Your task to perform on an android device: open app "Nova Launcher" (install if not already installed) Image 0: 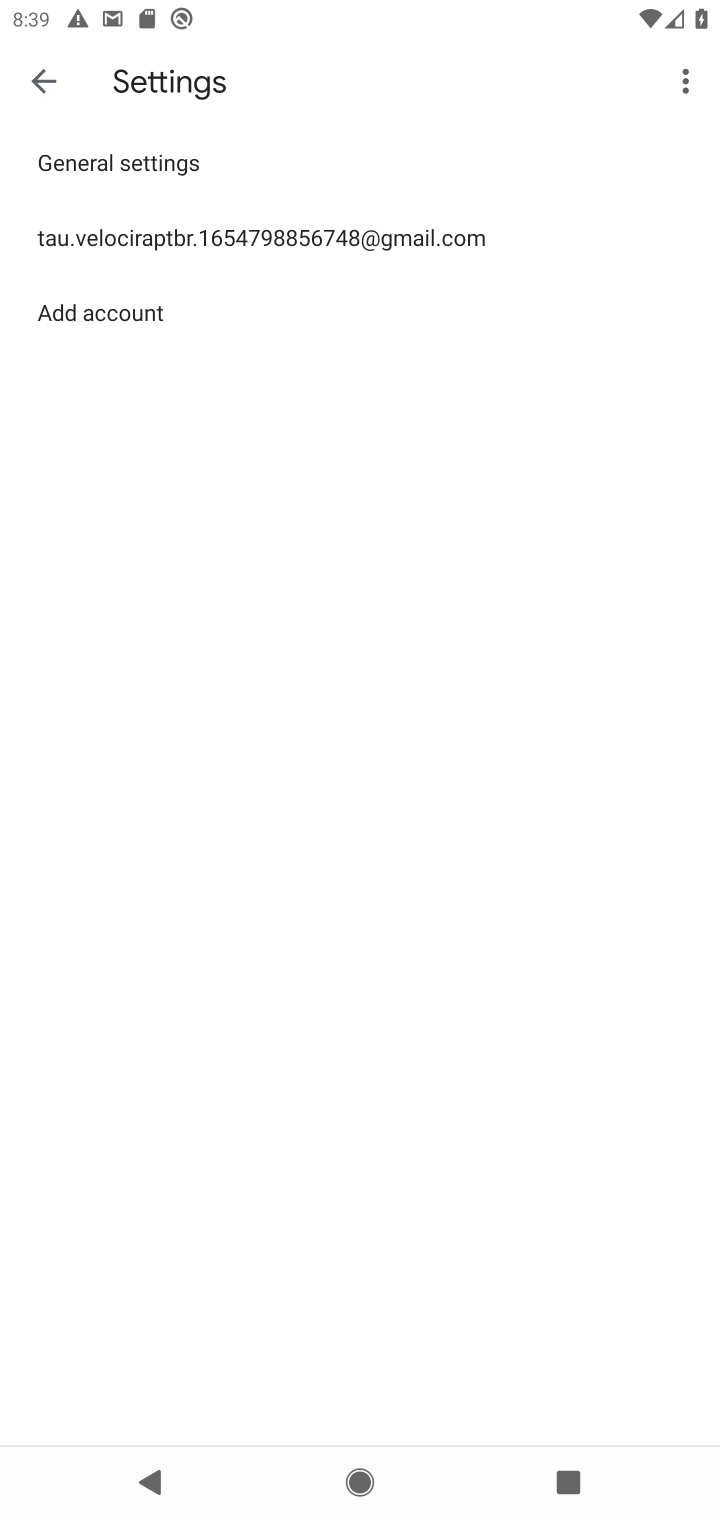
Step 0: press home button
Your task to perform on an android device: open app "Nova Launcher" (install if not already installed) Image 1: 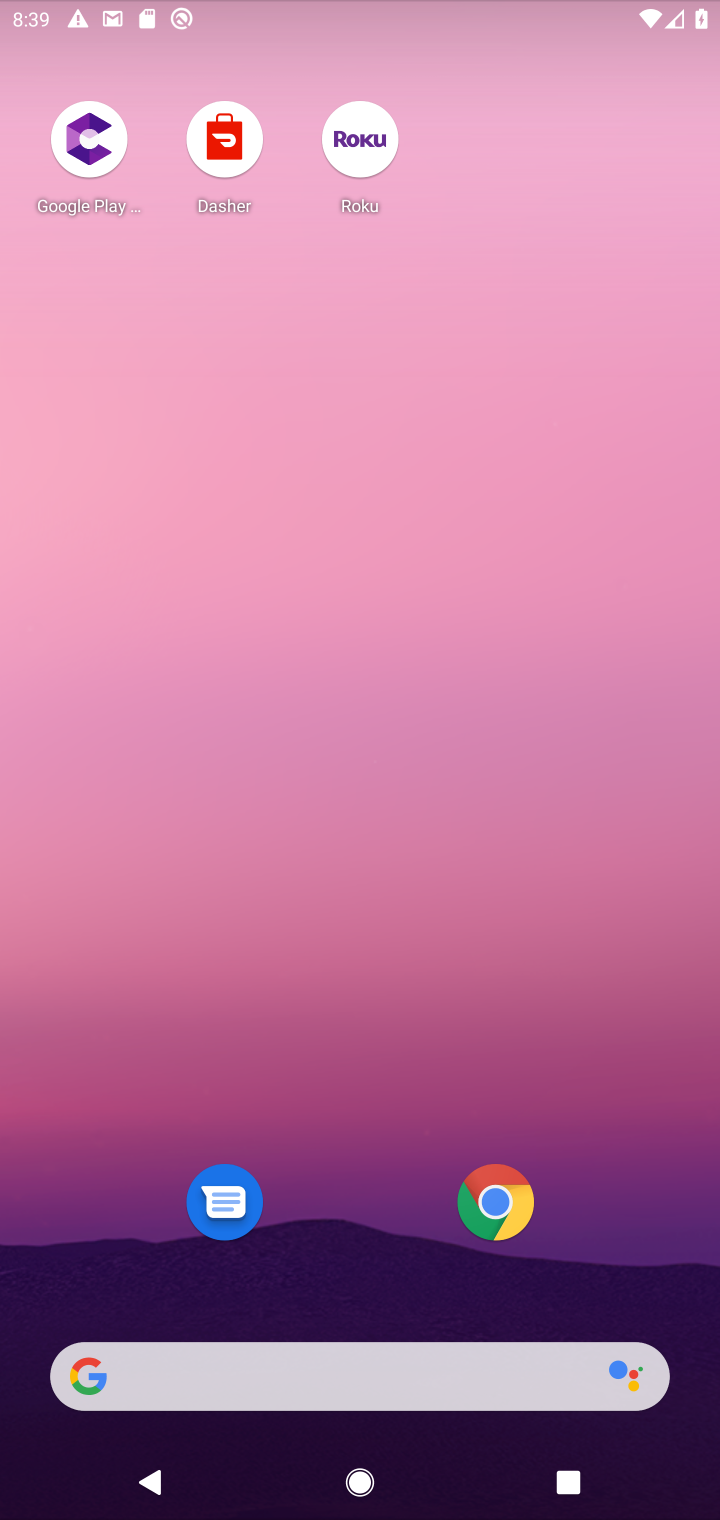
Step 1: drag from (410, 1397) to (609, 255)
Your task to perform on an android device: open app "Nova Launcher" (install if not already installed) Image 2: 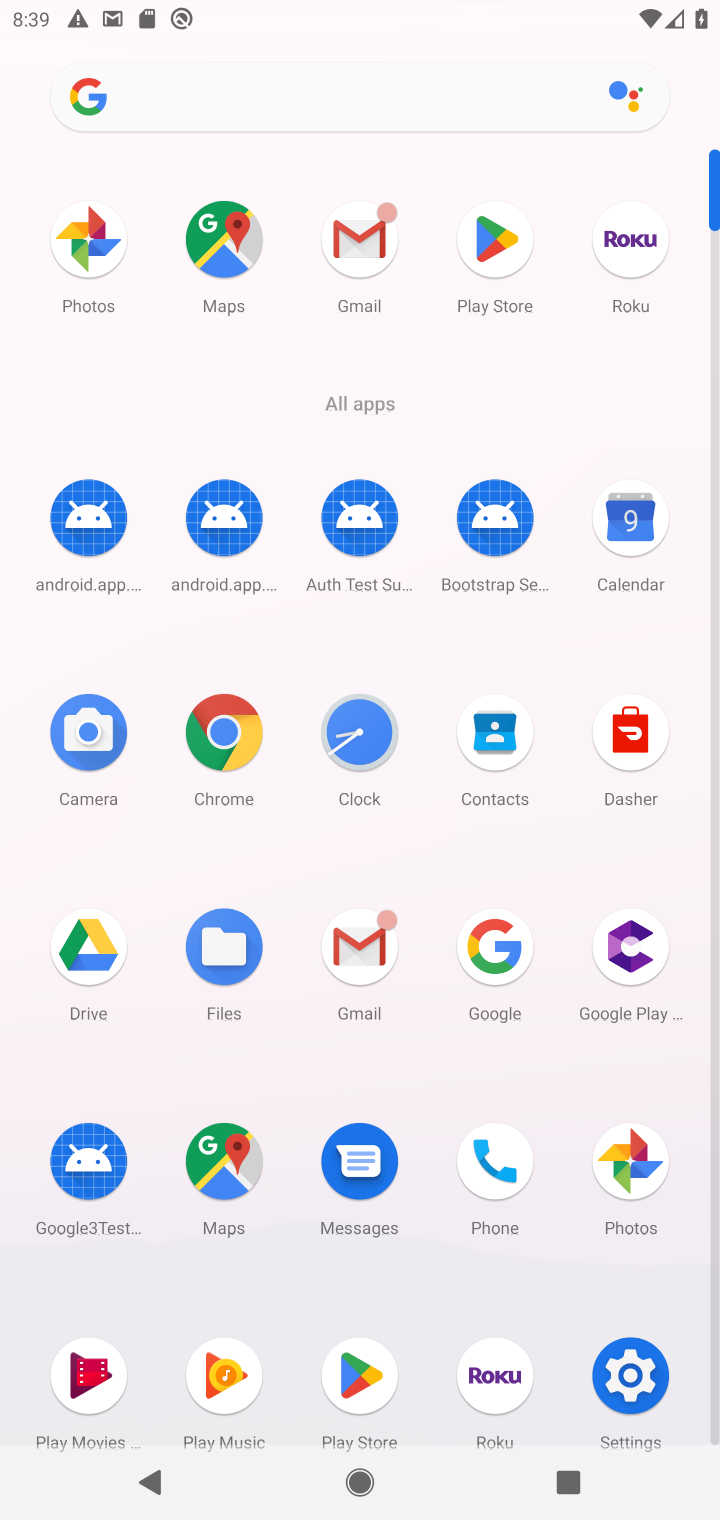
Step 2: click (491, 236)
Your task to perform on an android device: open app "Nova Launcher" (install if not already installed) Image 3: 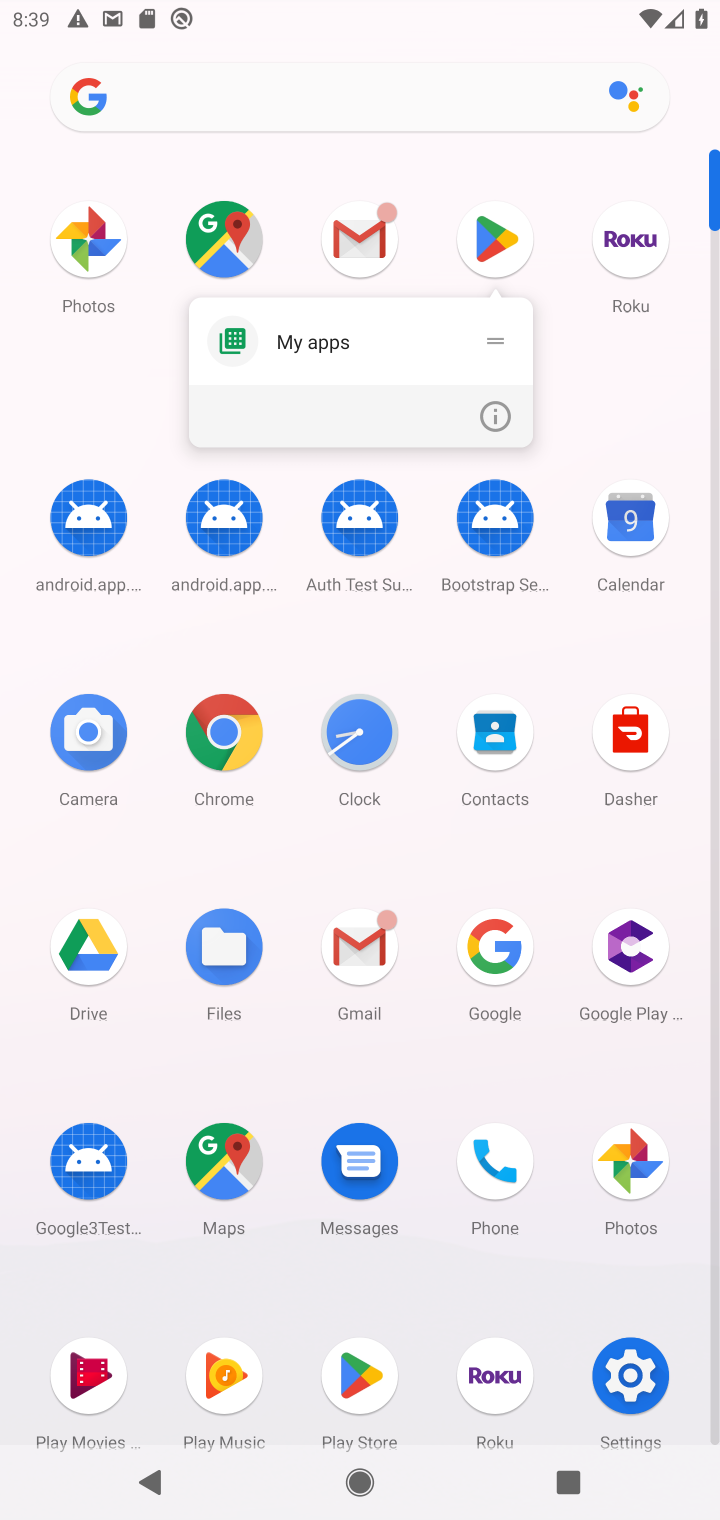
Step 3: click (478, 250)
Your task to perform on an android device: open app "Nova Launcher" (install if not already installed) Image 4: 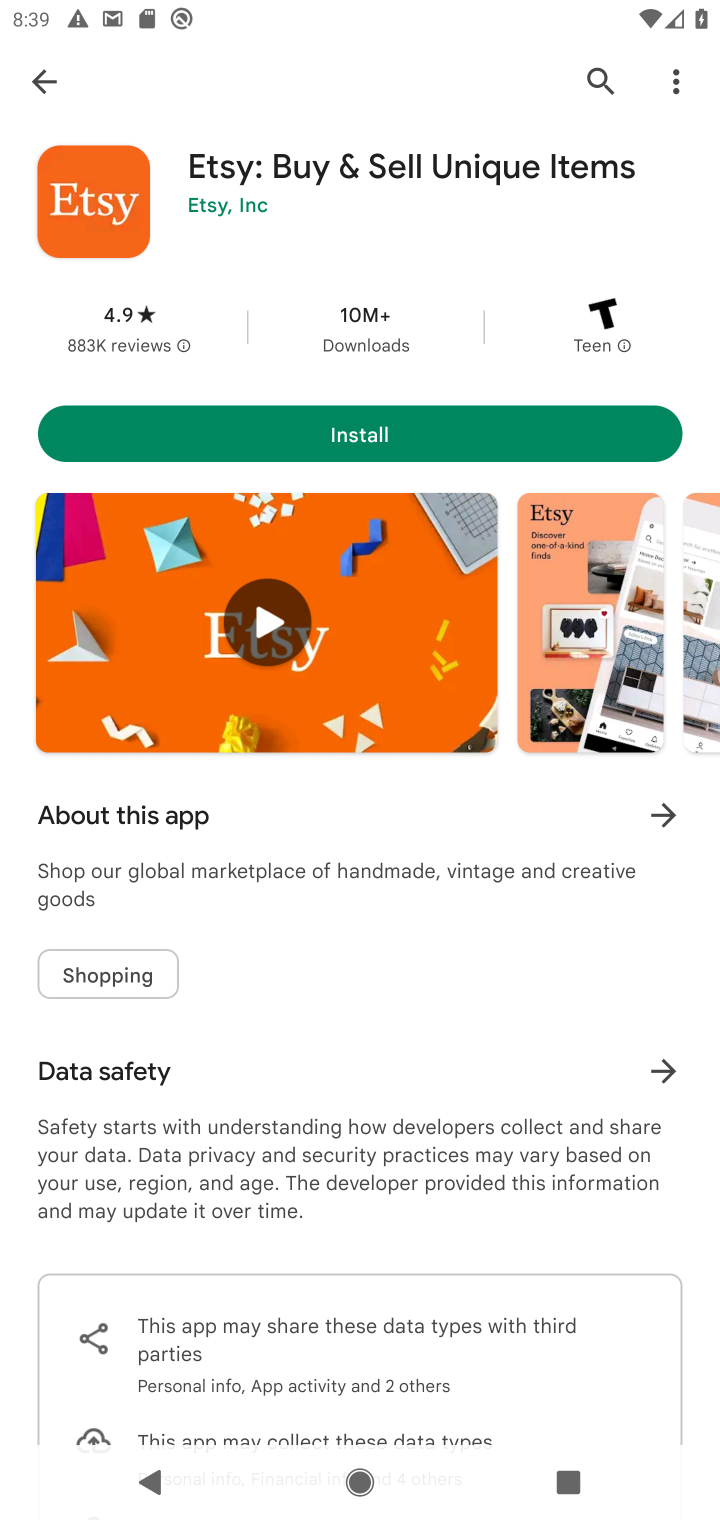
Step 4: press back button
Your task to perform on an android device: open app "Nova Launcher" (install if not already installed) Image 5: 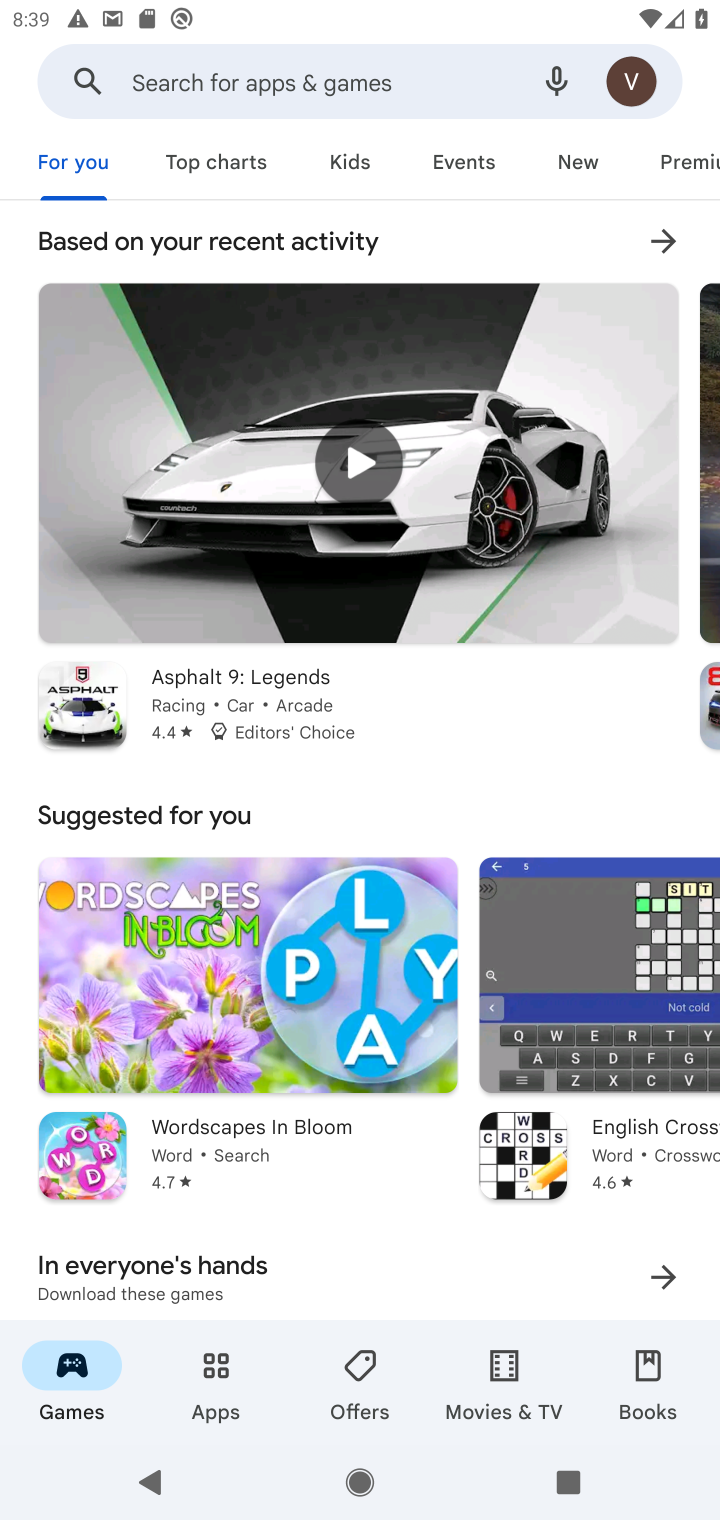
Step 5: click (251, 89)
Your task to perform on an android device: open app "Nova Launcher" (install if not already installed) Image 6: 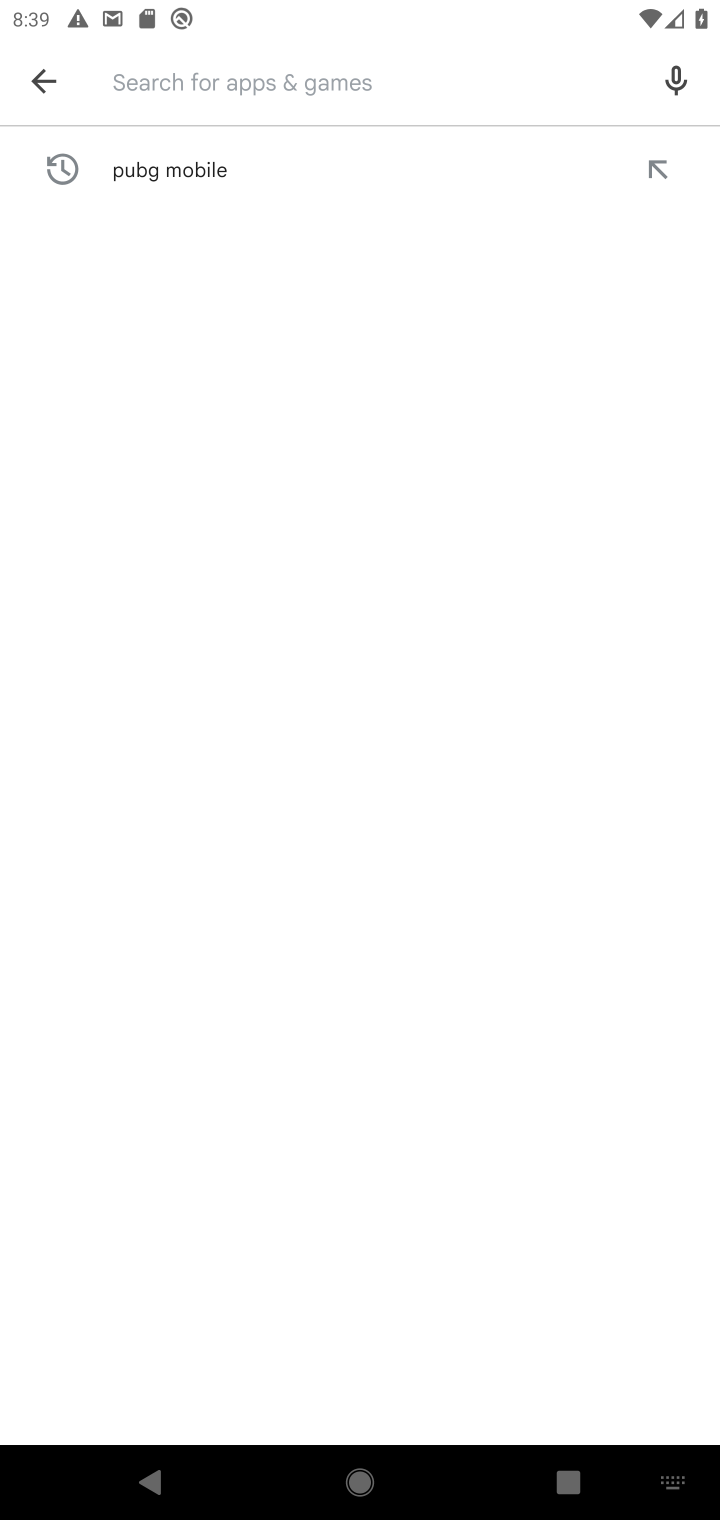
Step 6: type "Nova Launcher"
Your task to perform on an android device: open app "Nova Launcher" (install if not already installed) Image 7: 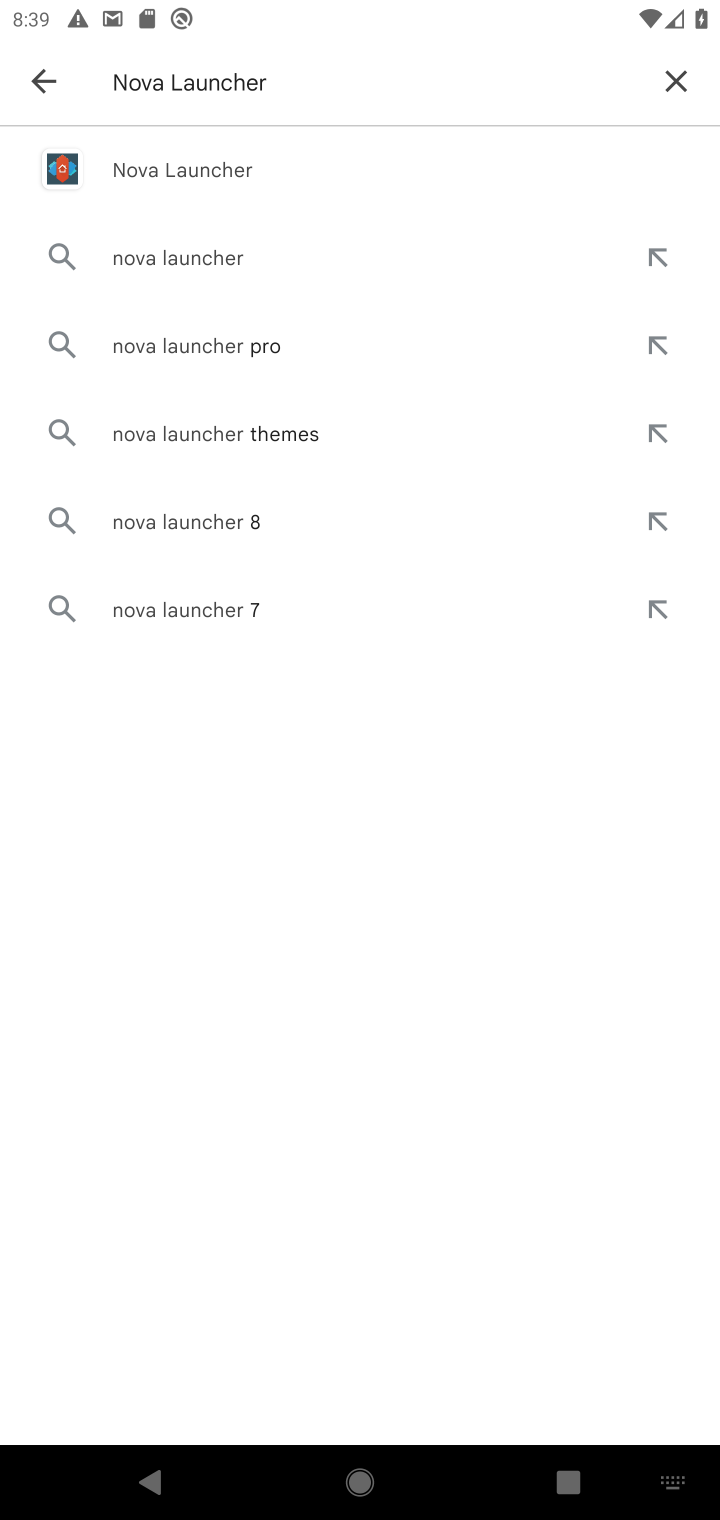
Step 7: click (240, 164)
Your task to perform on an android device: open app "Nova Launcher" (install if not already installed) Image 8: 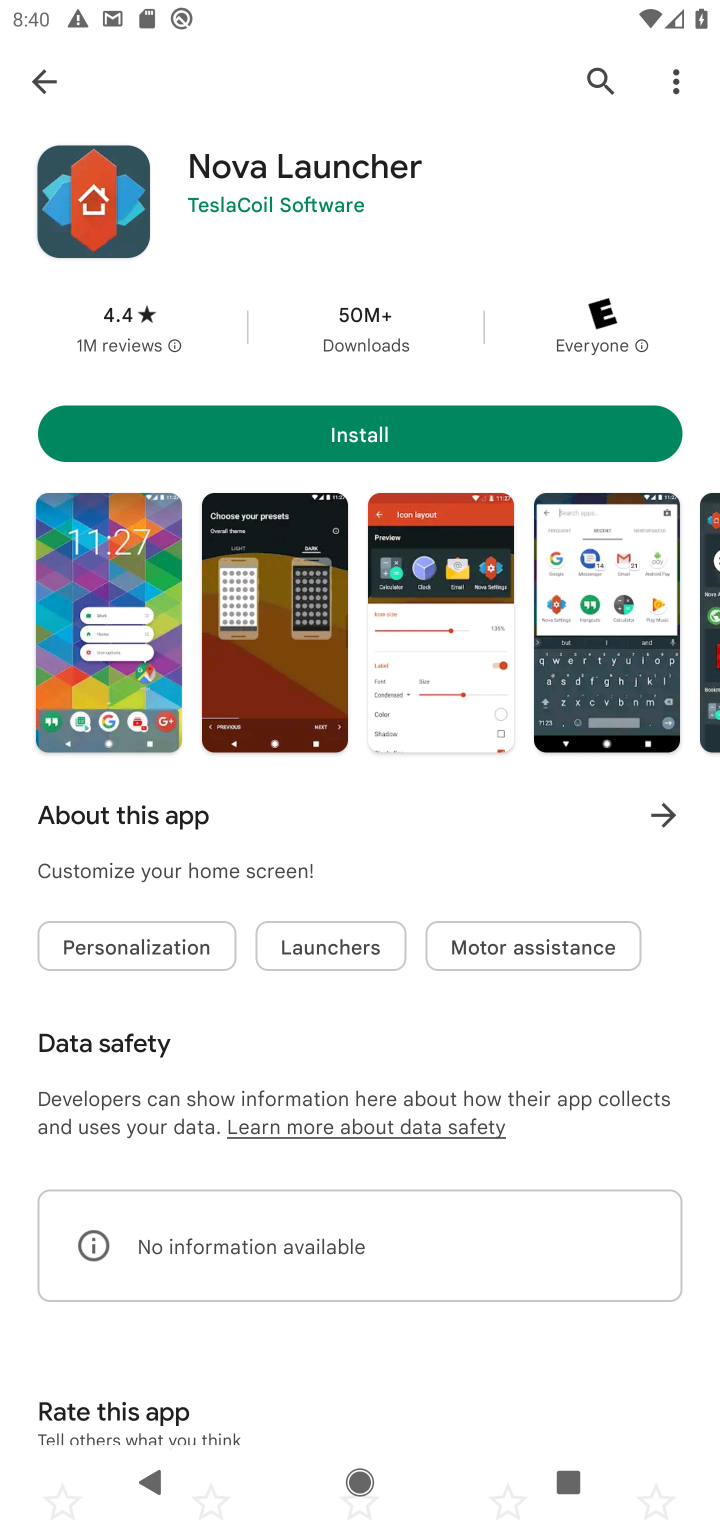
Step 8: click (398, 455)
Your task to perform on an android device: open app "Nova Launcher" (install if not already installed) Image 9: 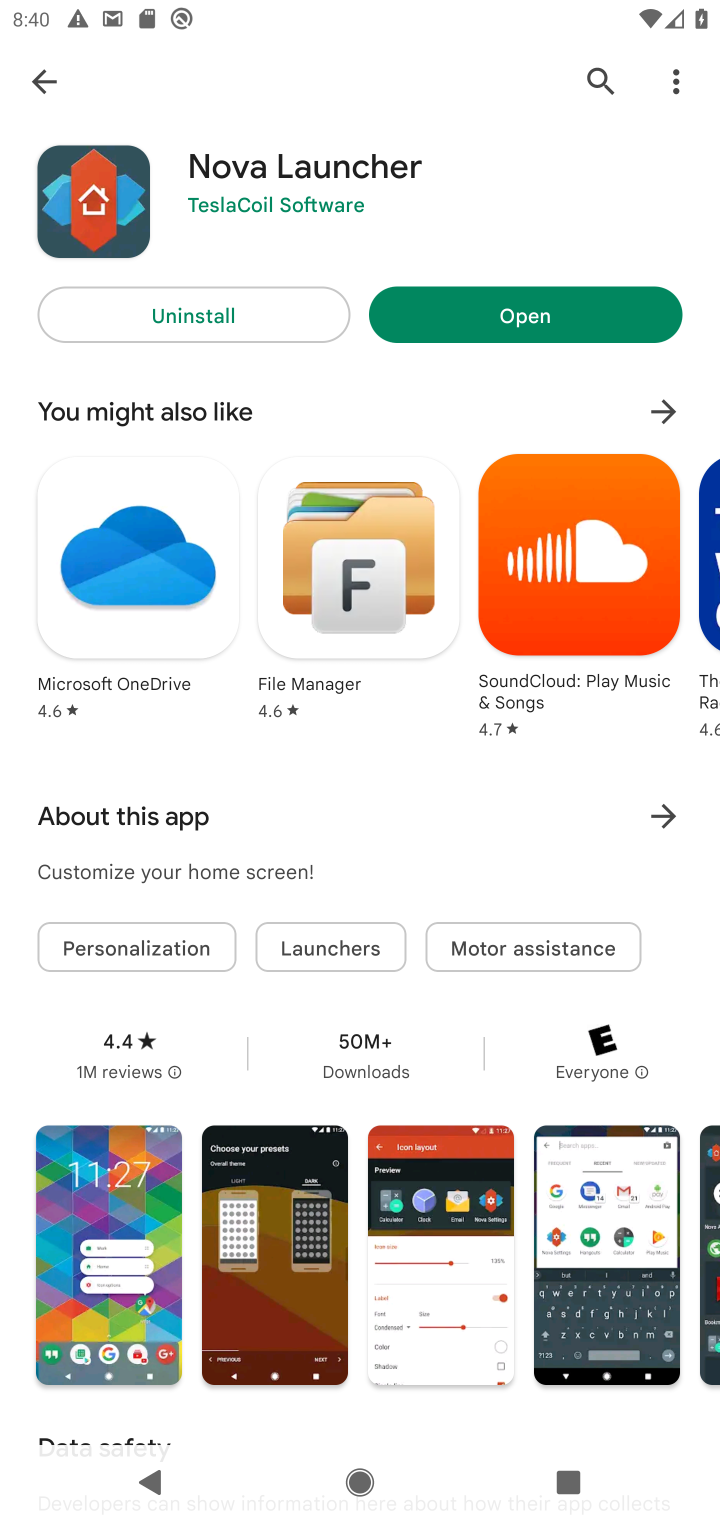
Step 9: click (512, 331)
Your task to perform on an android device: open app "Nova Launcher" (install if not already installed) Image 10: 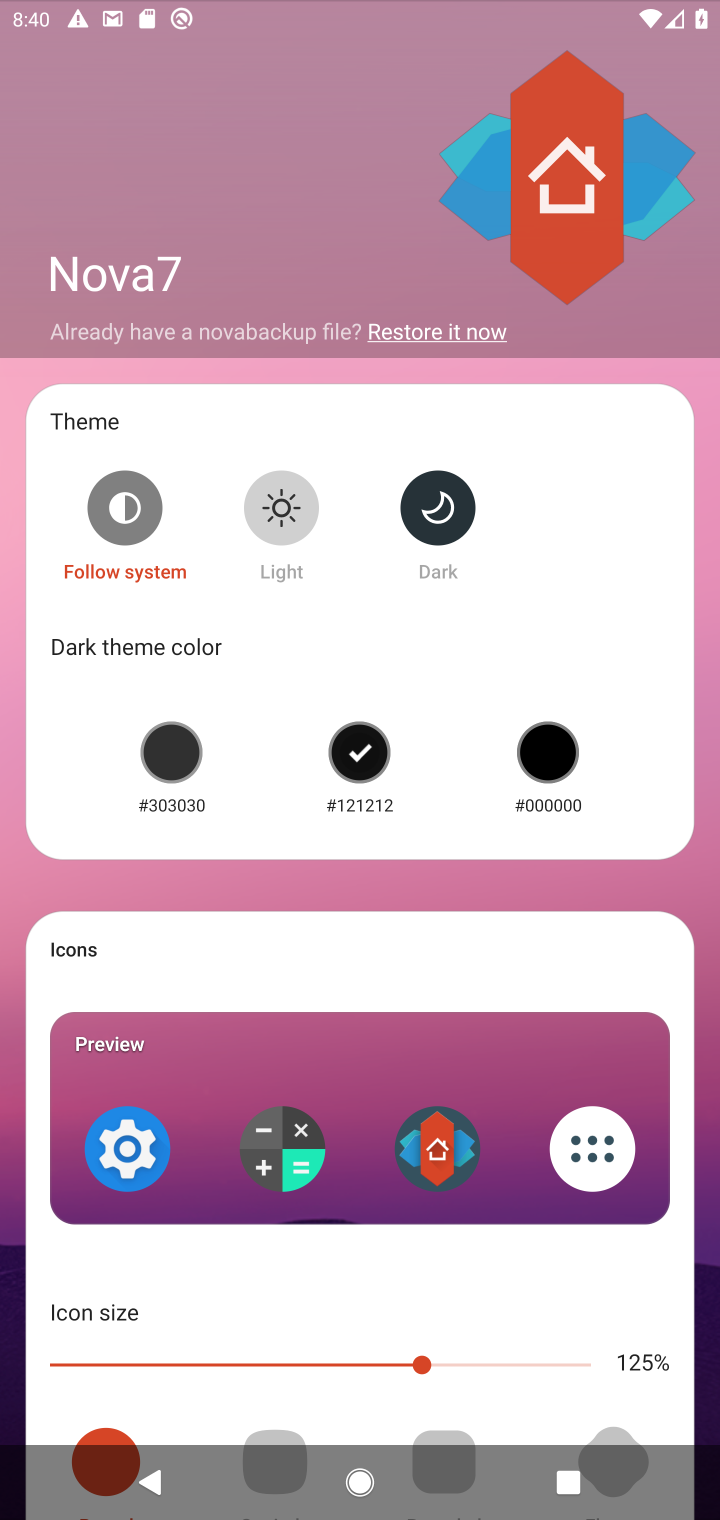
Step 10: task complete